Your task to perform on an android device: turn on the 12-hour format for clock Image 0: 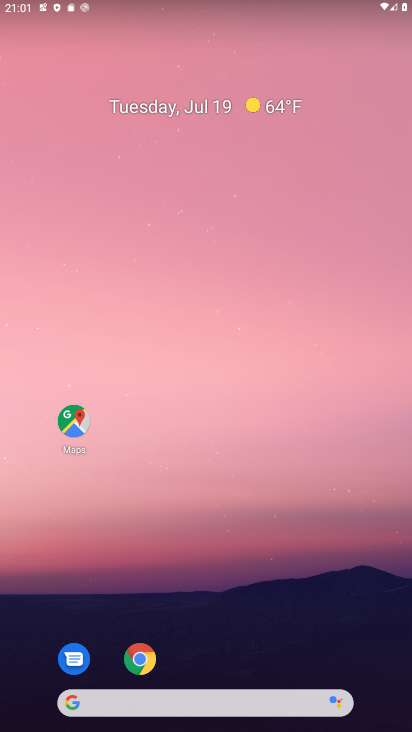
Step 0: drag from (250, 558) to (278, 307)
Your task to perform on an android device: turn on the 12-hour format for clock Image 1: 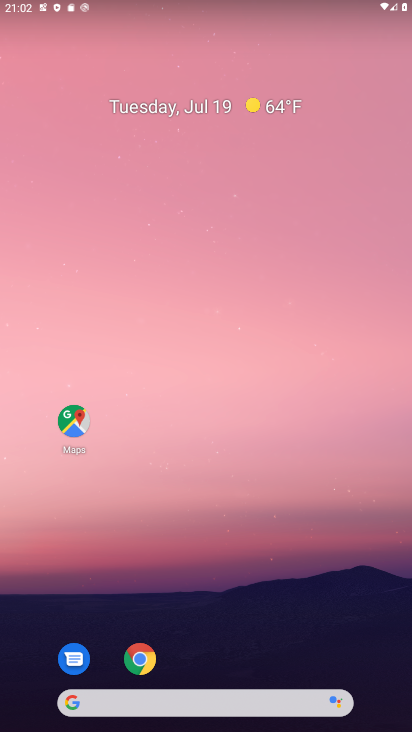
Step 1: drag from (235, 640) to (203, 88)
Your task to perform on an android device: turn on the 12-hour format for clock Image 2: 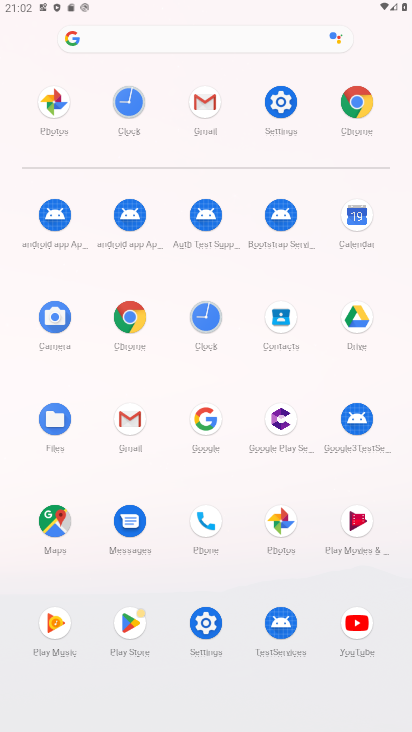
Step 2: click (213, 324)
Your task to perform on an android device: turn on the 12-hour format for clock Image 3: 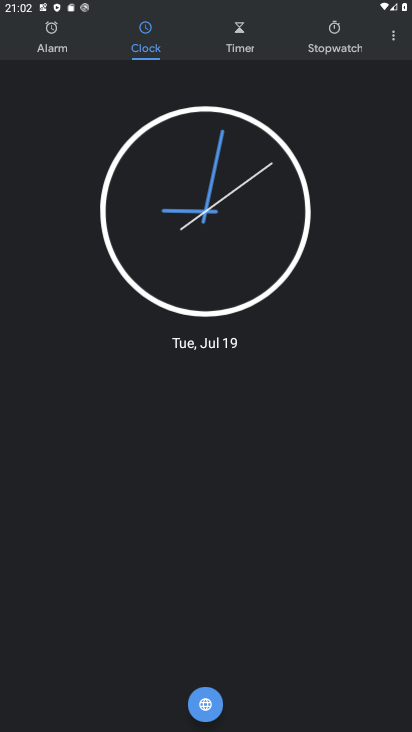
Step 3: click (389, 43)
Your task to perform on an android device: turn on the 12-hour format for clock Image 4: 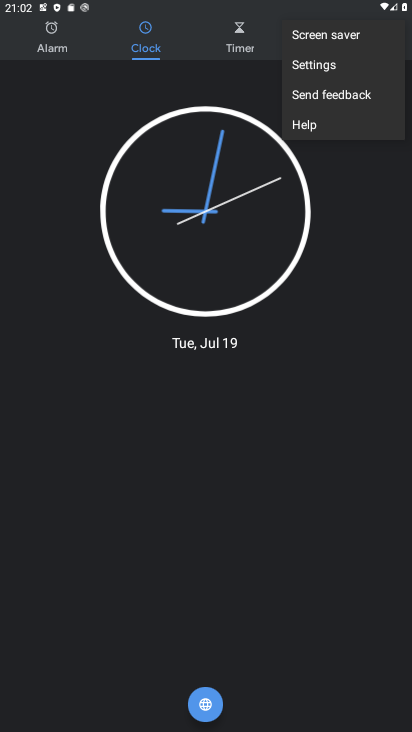
Step 4: click (353, 64)
Your task to perform on an android device: turn on the 12-hour format for clock Image 5: 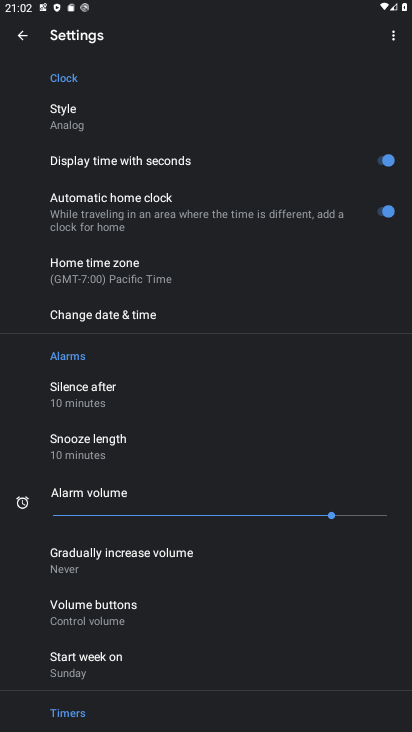
Step 5: task complete